Your task to perform on an android device: Turn off the flashlight Image 0: 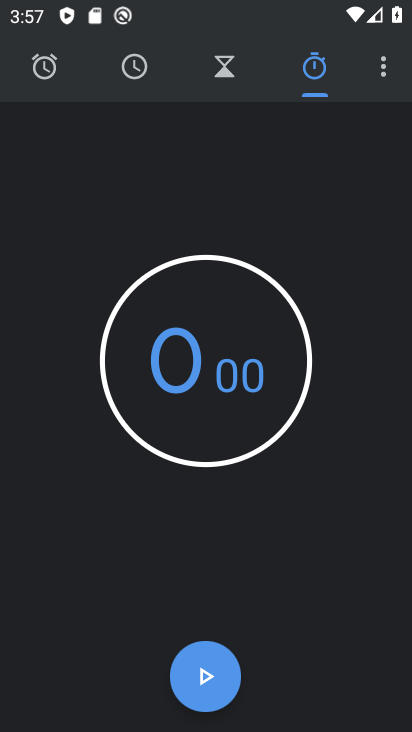
Step 0: press home button
Your task to perform on an android device: Turn off the flashlight Image 1: 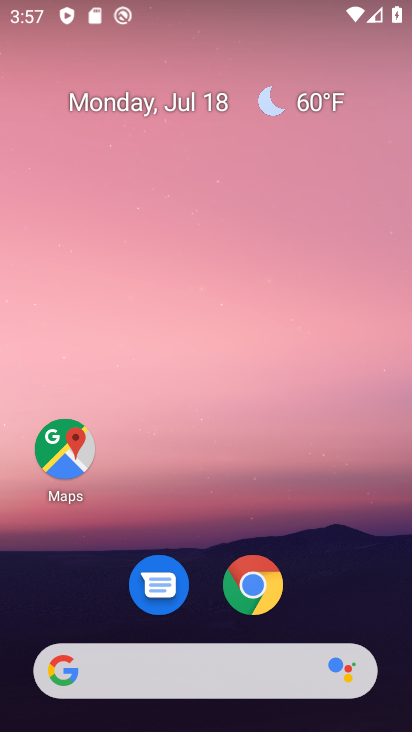
Step 1: drag from (228, 500) to (271, 0)
Your task to perform on an android device: Turn off the flashlight Image 2: 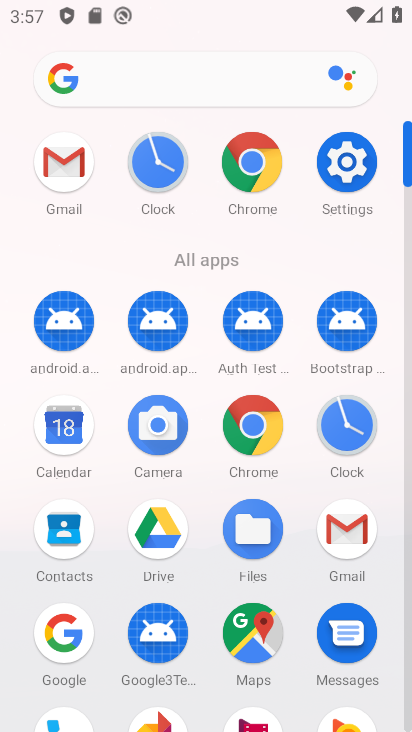
Step 2: click (360, 162)
Your task to perform on an android device: Turn off the flashlight Image 3: 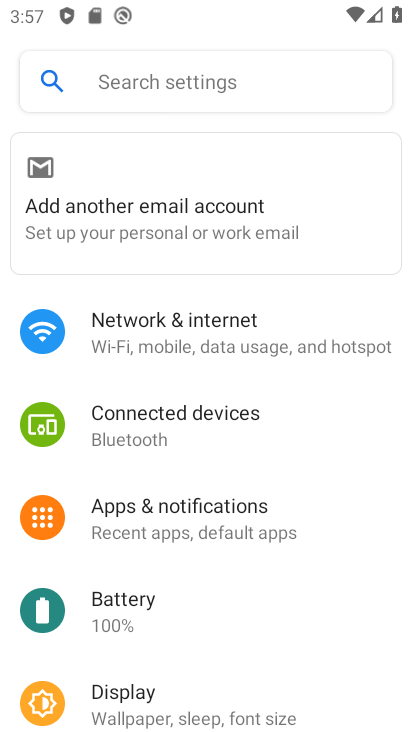
Step 3: click (211, 70)
Your task to perform on an android device: Turn off the flashlight Image 4: 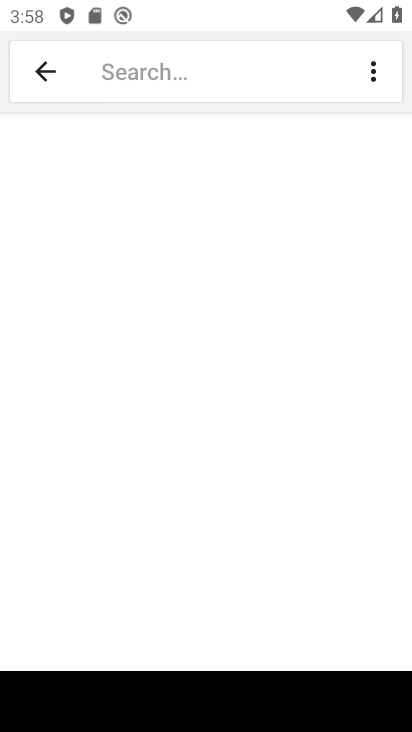
Step 4: type "Flashlight"
Your task to perform on an android device: Turn off the flashlight Image 5: 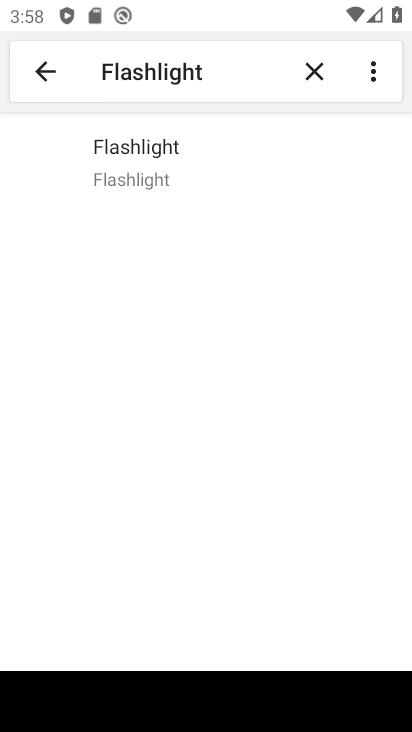
Step 5: click (138, 174)
Your task to perform on an android device: Turn off the flashlight Image 6: 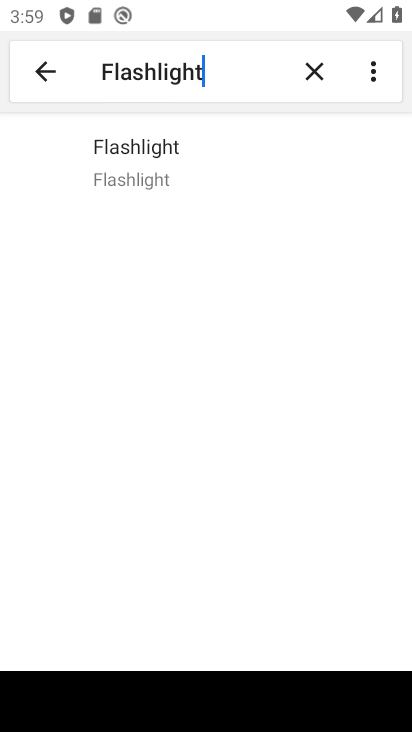
Step 6: click (147, 164)
Your task to perform on an android device: Turn off the flashlight Image 7: 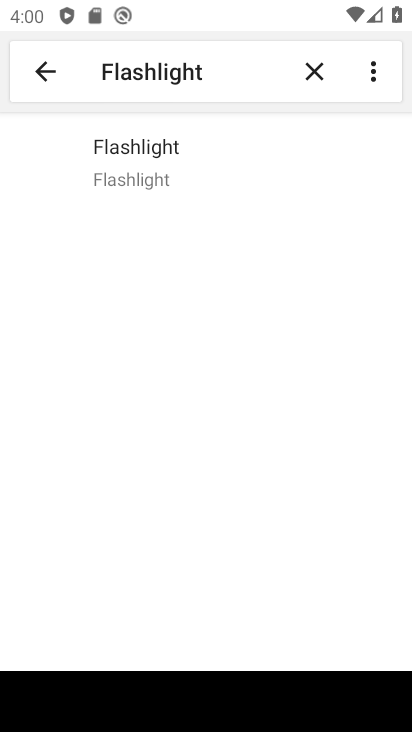
Step 7: task complete